Your task to perform on an android device: change alarm snooze length Image 0: 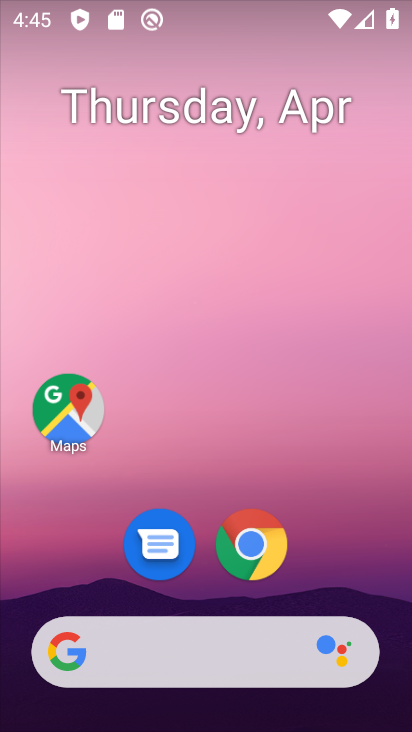
Step 0: drag from (344, 578) to (287, 132)
Your task to perform on an android device: change alarm snooze length Image 1: 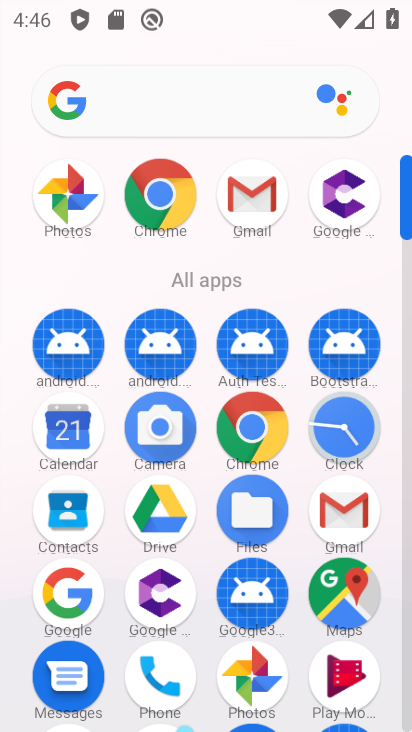
Step 1: click (348, 454)
Your task to perform on an android device: change alarm snooze length Image 2: 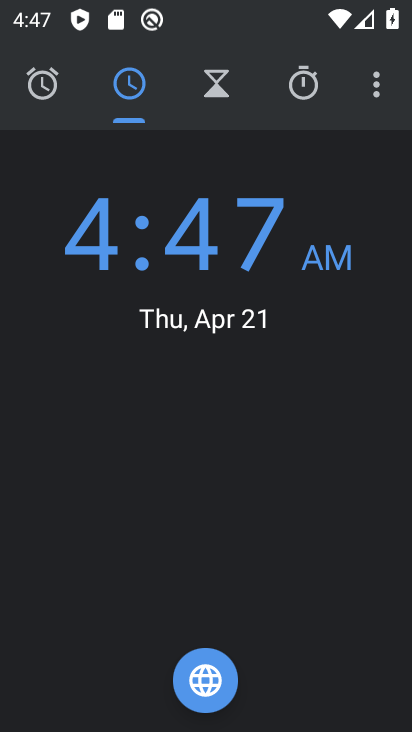
Step 2: click (34, 92)
Your task to perform on an android device: change alarm snooze length Image 3: 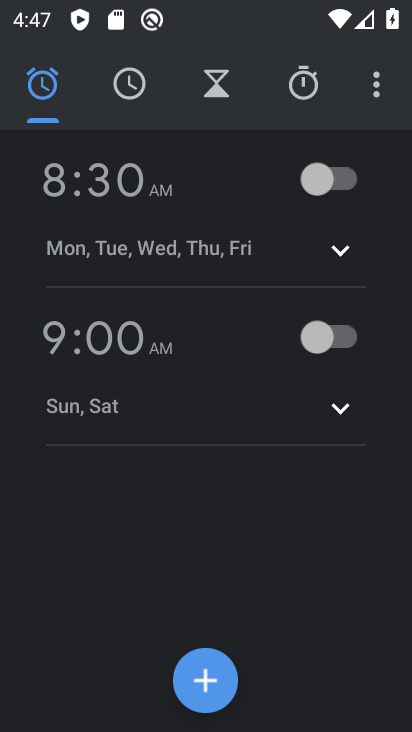
Step 3: click (380, 91)
Your task to perform on an android device: change alarm snooze length Image 4: 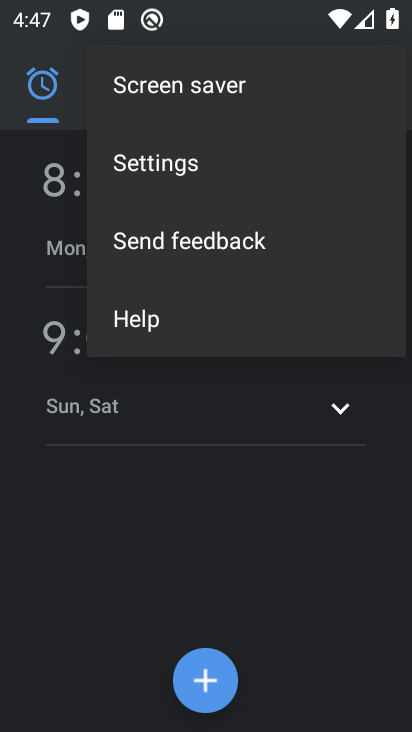
Step 4: click (229, 176)
Your task to perform on an android device: change alarm snooze length Image 5: 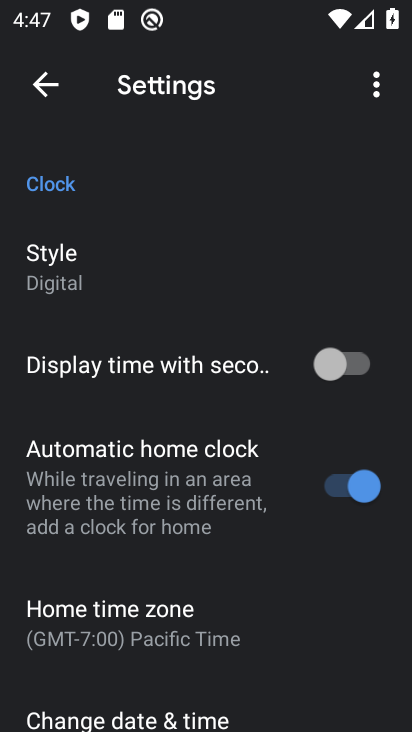
Step 5: drag from (199, 632) to (232, 245)
Your task to perform on an android device: change alarm snooze length Image 6: 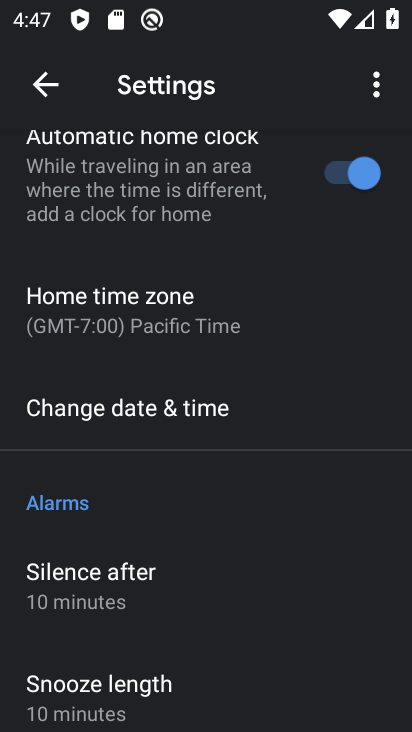
Step 6: drag from (214, 571) to (250, 299)
Your task to perform on an android device: change alarm snooze length Image 7: 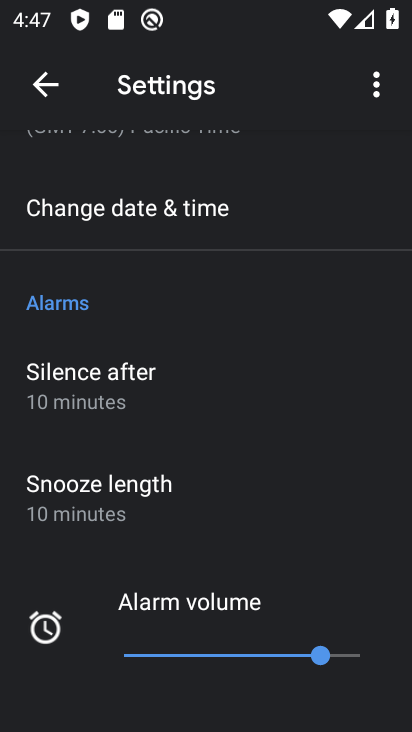
Step 7: click (188, 508)
Your task to perform on an android device: change alarm snooze length Image 8: 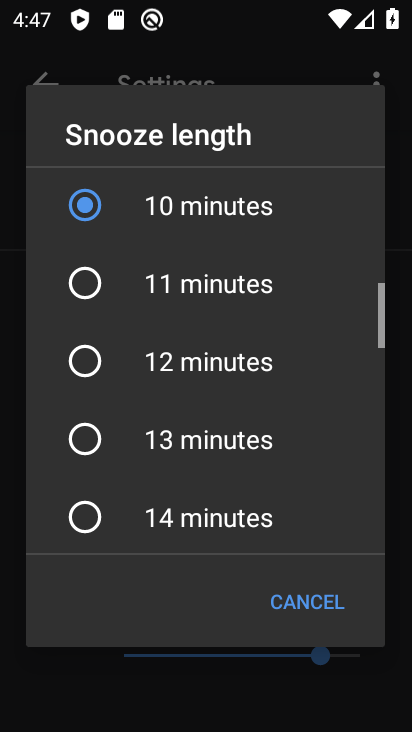
Step 8: click (234, 301)
Your task to perform on an android device: change alarm snooze length Image 9: 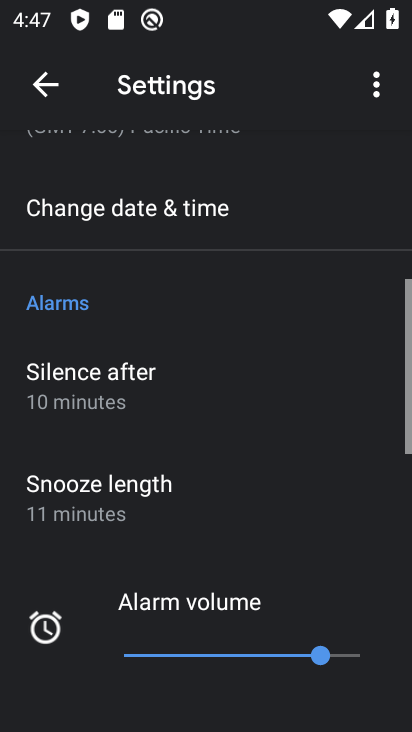
Step 9: task complete